Your task to perform on an android device: Go to accessibility settings Image 0: 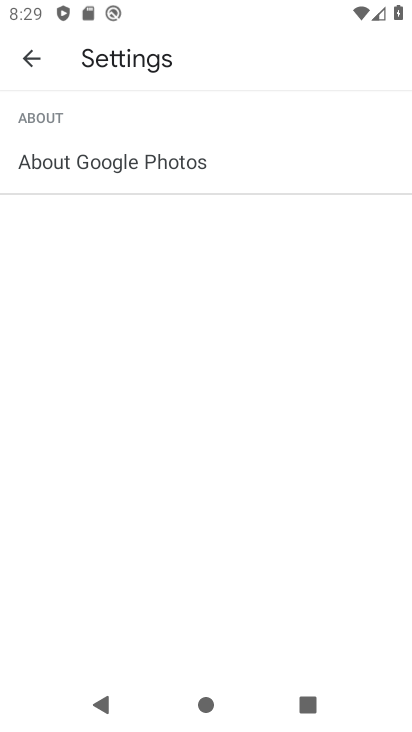
Step 0: press home button
Your task to perform on an android device: Go to accessibility settings Image 1: 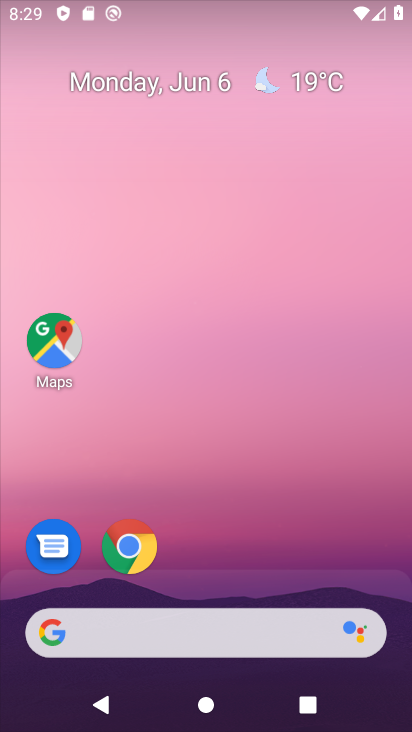
Step 1: drag from (142, 729) to (237, 39)
Your task to perform on an android device: Go to accessibility settings Image 2: 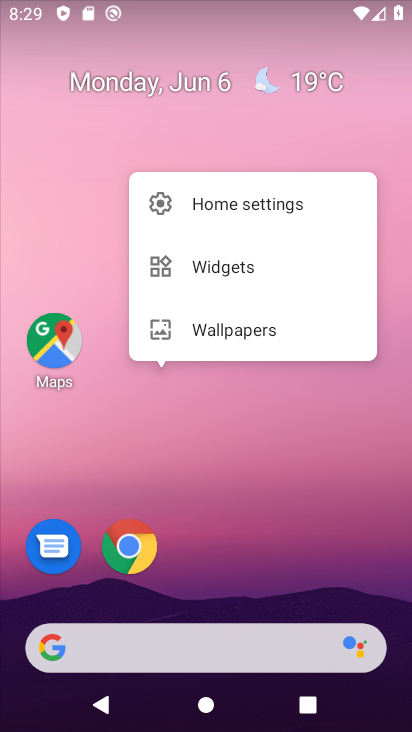
Step 2: press home button
Your task to perform on an android device: Go to accessibility settings Image 3: 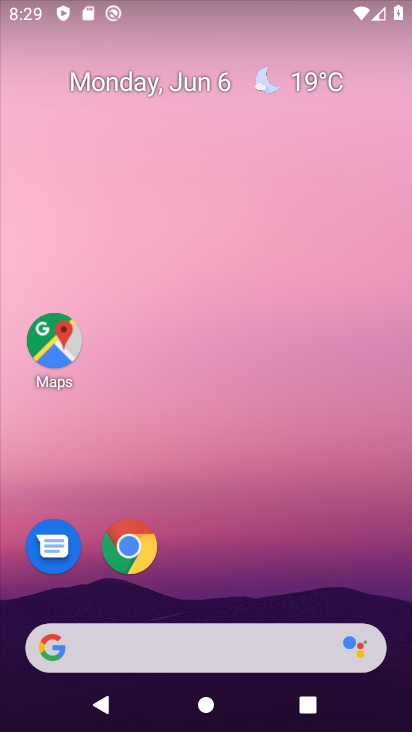
Step 3: drag from (152, 724) to (255, 97)
Your task to perform on an android device: Go to accessibility settings Image 4: 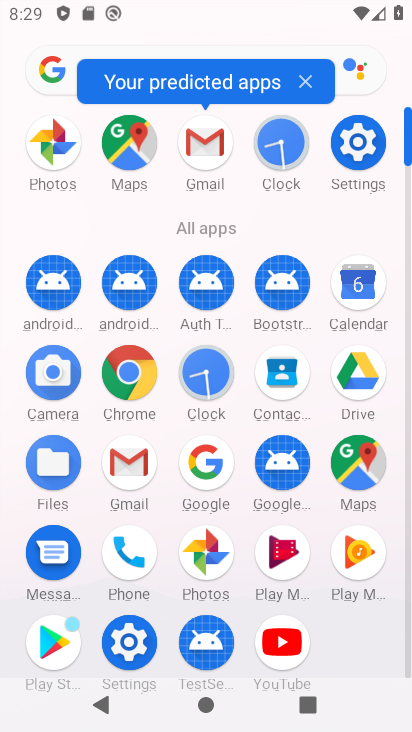
Step 4: click (140, 634)
Your task to perform on an android device: Go to accessibility settings Image 5: 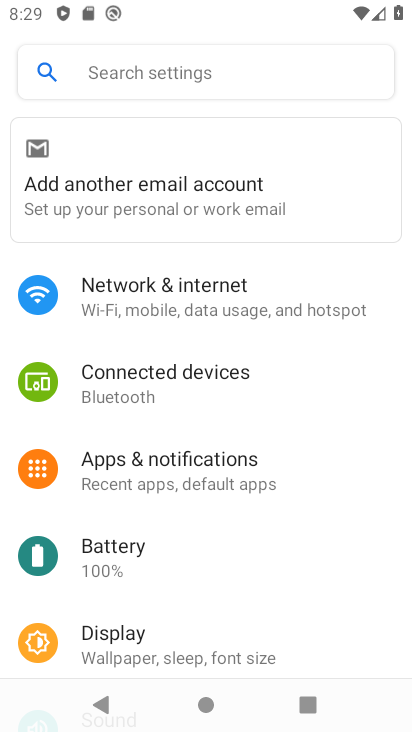
Step 5: drag from (321, 637) to (382, 268)
Your task to perform on an android device: Go to accessibility settings Image 6: 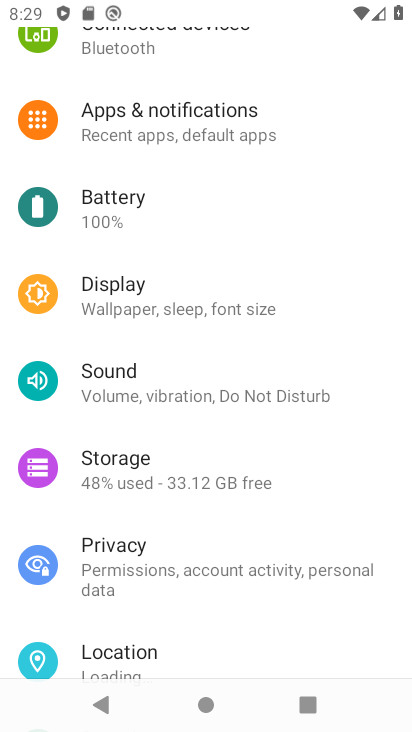
Step 6: drag from (281, 631) to (296, 279)
Your task to perform on an android device: Go to accessibility settings Image 7: 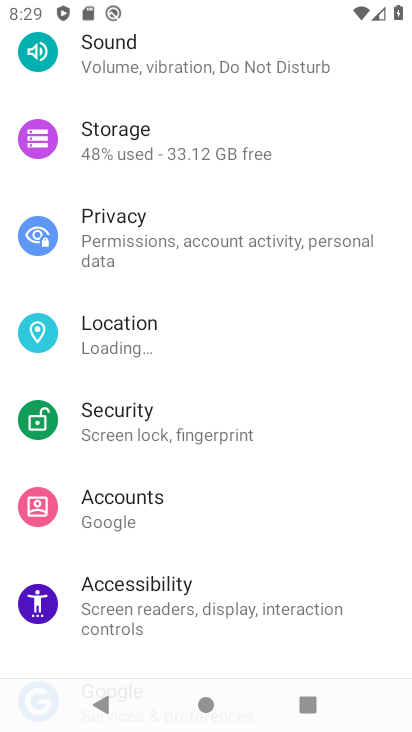
Step 7: click (102, 615)
Your task to perform on an android device: Go to accessibility settings Image 8: 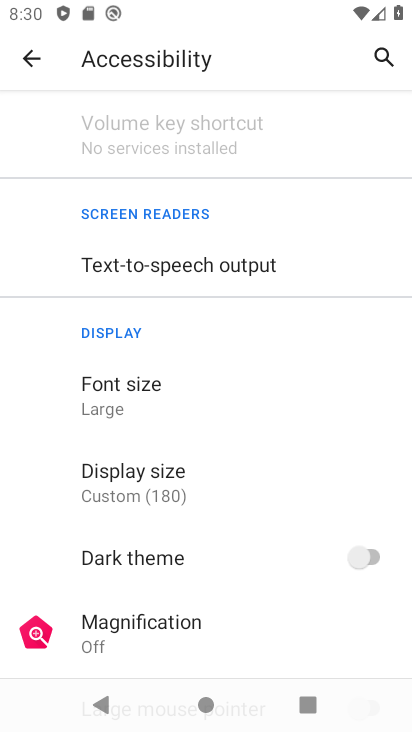
Step 8: task complete